Your task to perform on an android device: empty trash in the gmail app Image 0: 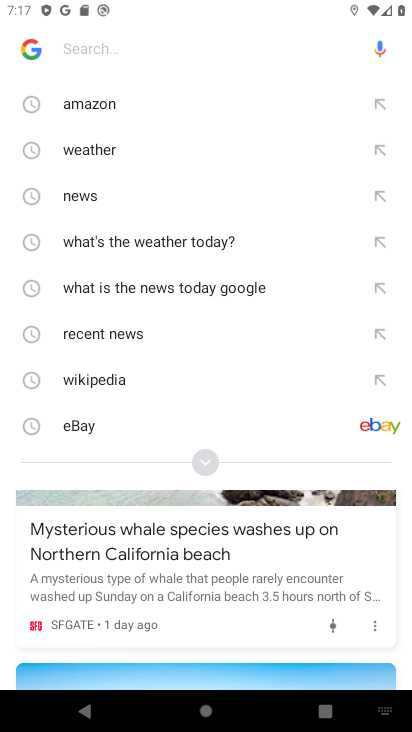
Step 0: press back button
Your task to perform on an android device: empty trash in the gmail app Image 1: 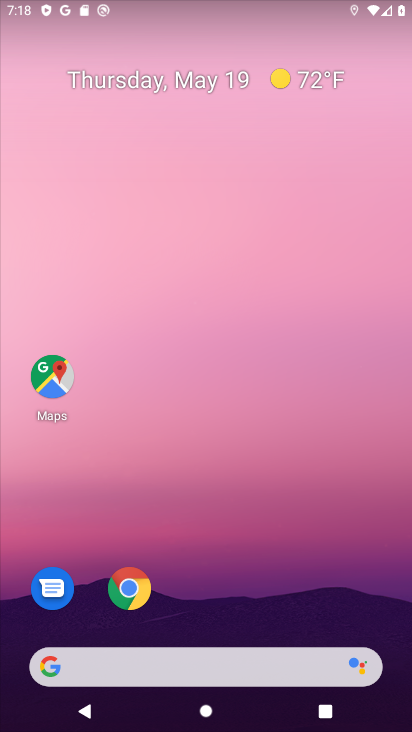
Step 1: drag from (333, 625) to (252, 0)
Your task to perform on an android device: empty trash in the gmail app Image 2: 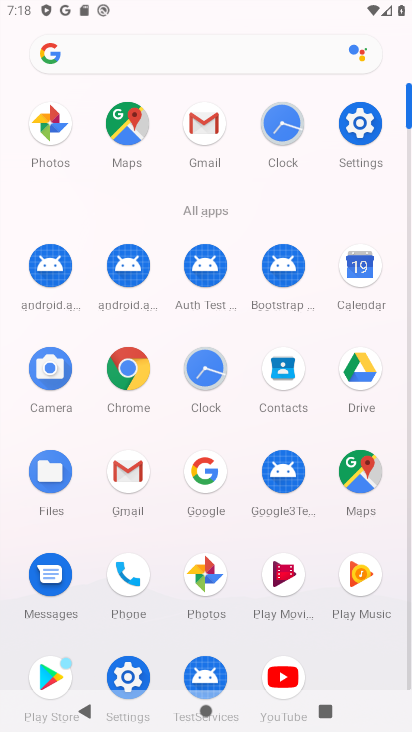
Step 2: click (132, 469)
Your task to perform on an android device: empty trash in the gmail app Image 3: 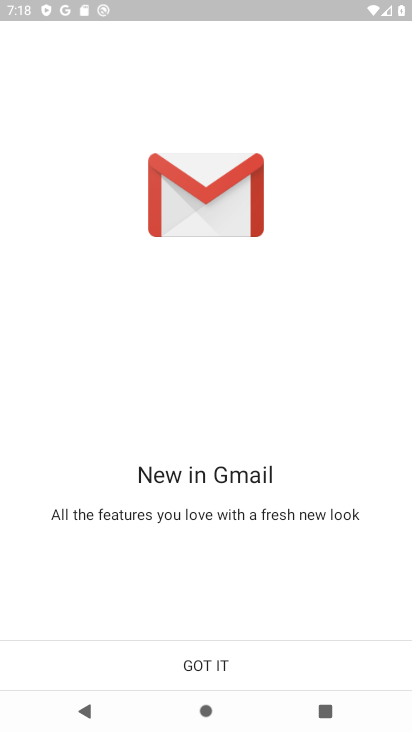
Step 3: click (223, 658)
Your task to perform on an android device: empty trash in the gmail app Image 4: 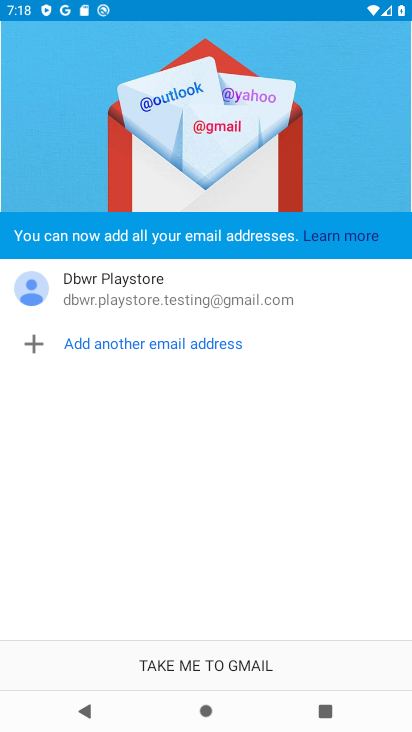
Step 4: click (224, 658)
Your task to perform on an android device: empty trash in the gmail app Image 5: 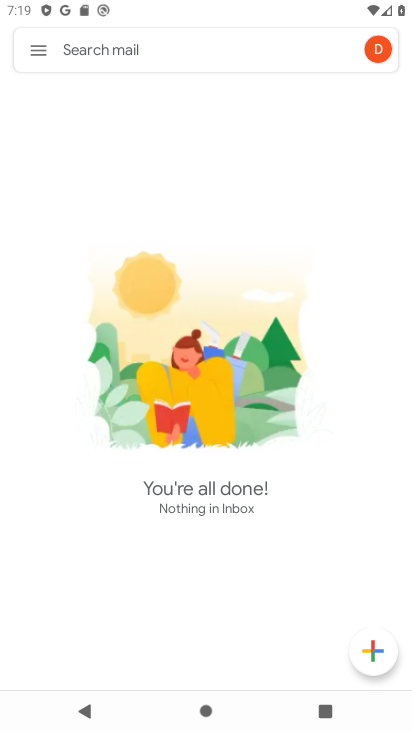
Step 5: click (48, 47)
Your task to perform on an android device: empty trash in the gmail app Image 6: 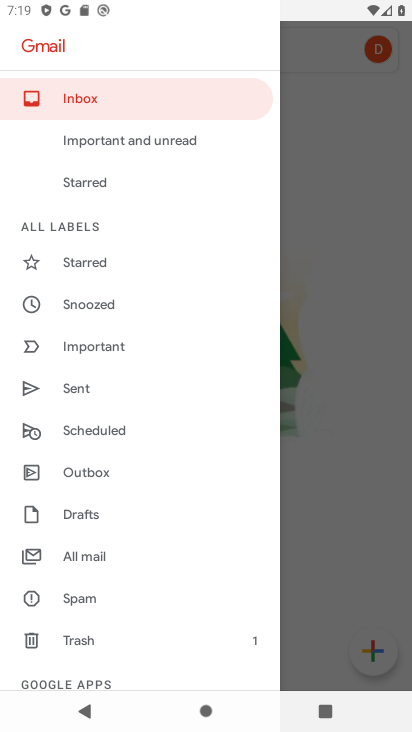
Step 6: click (121, 643)
Your task to perform on an android device: empty trash in the gmail app Image 7: 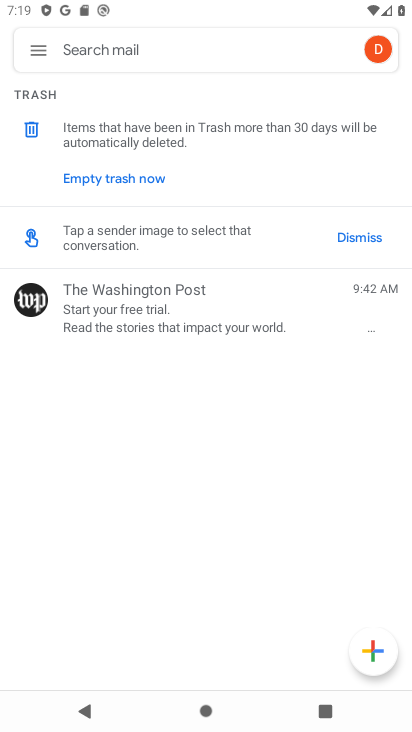
Step 7: click (142, 178)
Your task to perform on an android device: empty trash in the gmail app Image 8: 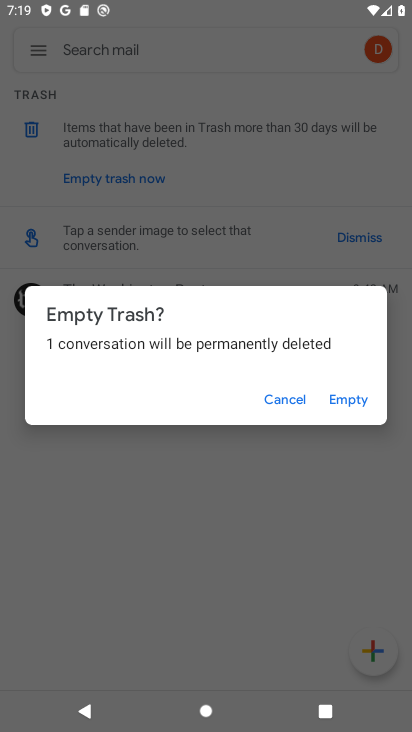
Step 8: click (361, 398)
Your task to perform on an android device: empty trash in the gmail app Image 9: 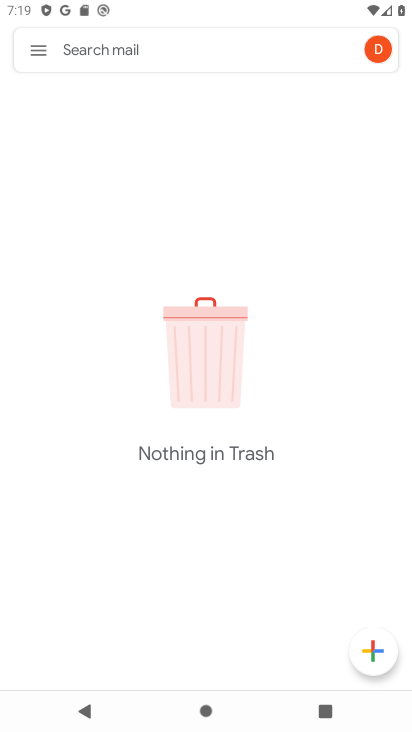
Step 9: task complete